Your task to perform on an android device: open sync settings in chrome Image 0: 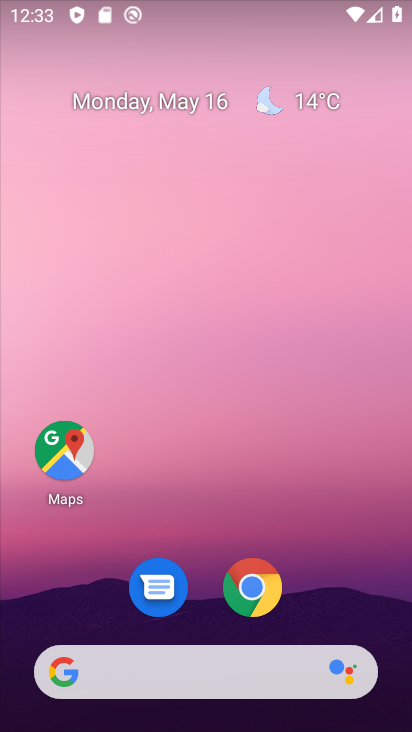
Step 0: click (253, 594)
Your task to perform on an android device: open sync settings in chrome Image 1: 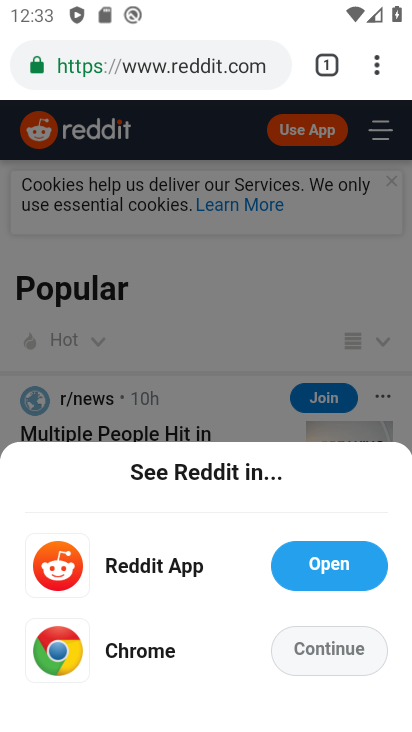
Step 1: click (374, 70)
Your task to perform on an android device: open sync settings in chrome Image 2: 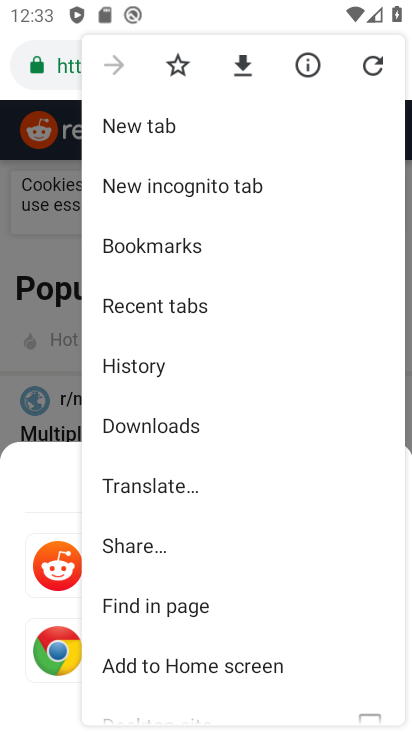
Step 2: drag from (174, 654) to (191, 203)
Your task to perform on an android device: open sync settings in chrome Image 3: 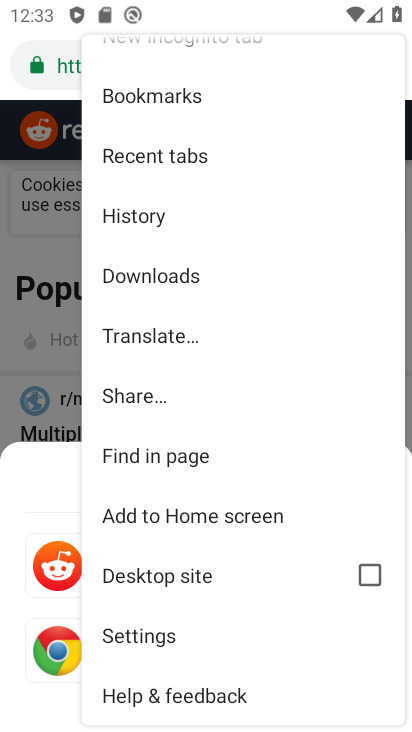
Step 3: click (130, 631)
Your task to perform on an android device: open sync settings in chrome Image 4: 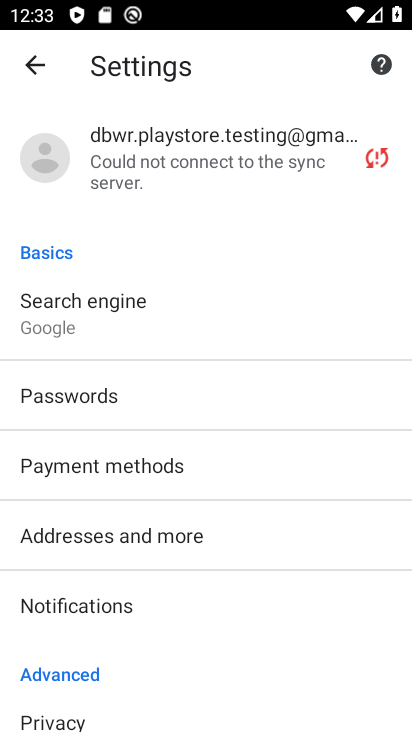
Step 4: drag from (72, 553) to (90, 332)
Your task to perform on an android device: open sync settings in chrome Image 5: 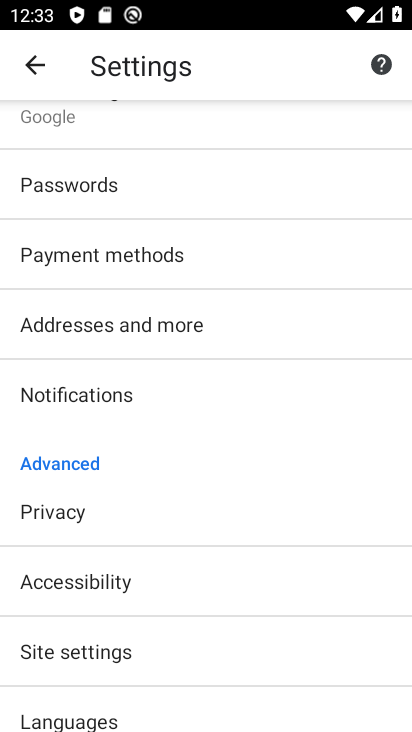
Step 5: click (71, 649)
Your task to perform on an android device: open sync settings in chrome Image 6: 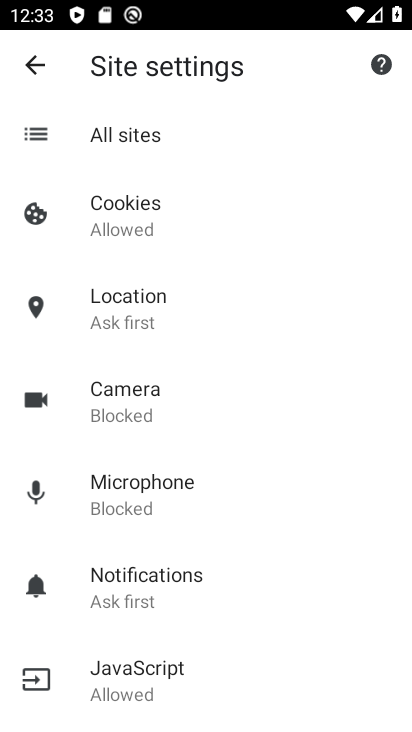
Step 6: drag from (172, 648) to (216, 199)
Your task to perform on an android device: open sync settings in chrome Image 7: 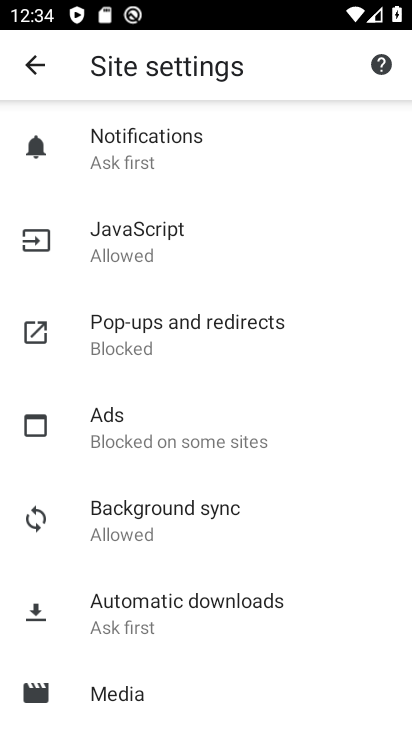
Step 7: drag from (165, 675) to (188, 322)
Your task to perform on an android device: open sync settings in chrome Image 8: 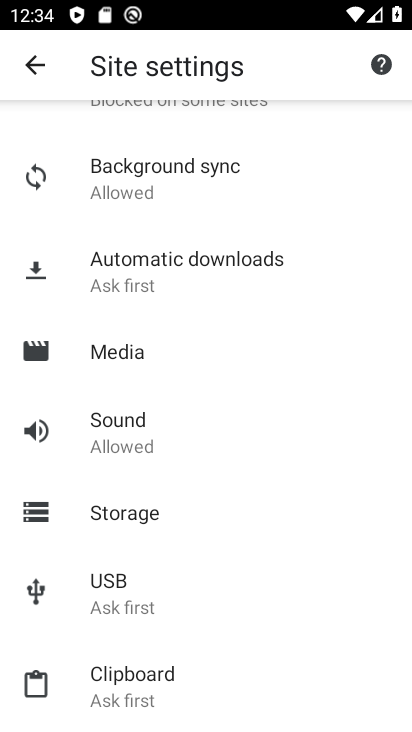
Step 8: click (168, 173)
Your task to perform on an android device: open sync settings in chrome Image 9: 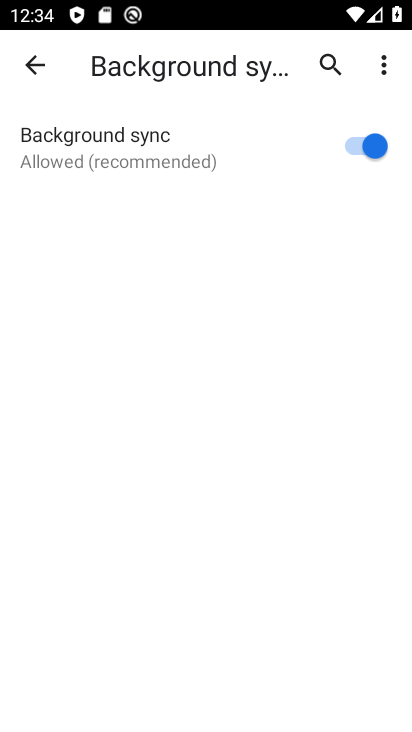
Step 9: task complete